Your task to perform on an android device: Open network settings Image 0: 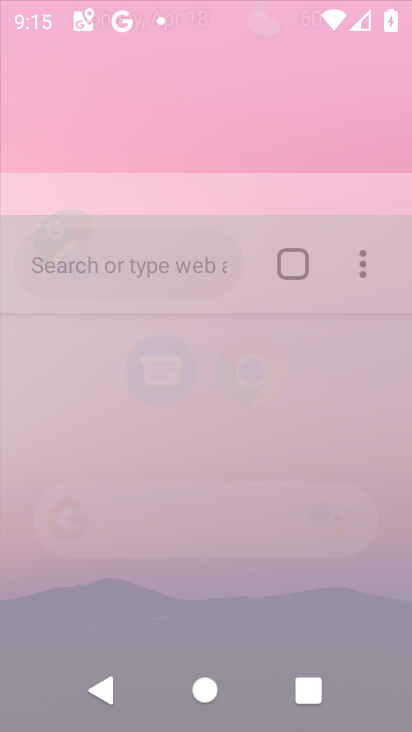
Step 0: drag from (387, 530) to (368, 111)
Your task to perform on an android device: Open network settings Image 1: 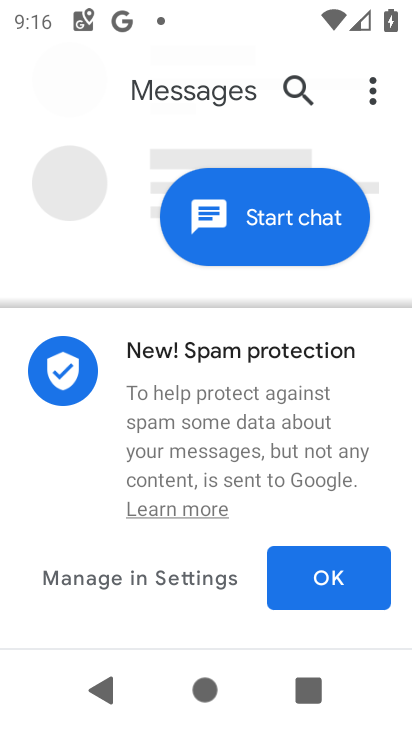
Step 1: press home button
Your task to perform on an android device: Open network settings Image 2: 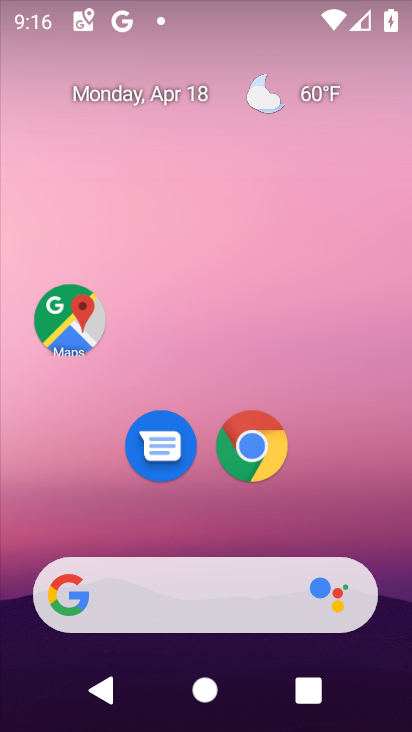
Step 2: drag from (358, 518) to (382, 130)
Your task to perform on an android device: Open network settings Image 3: 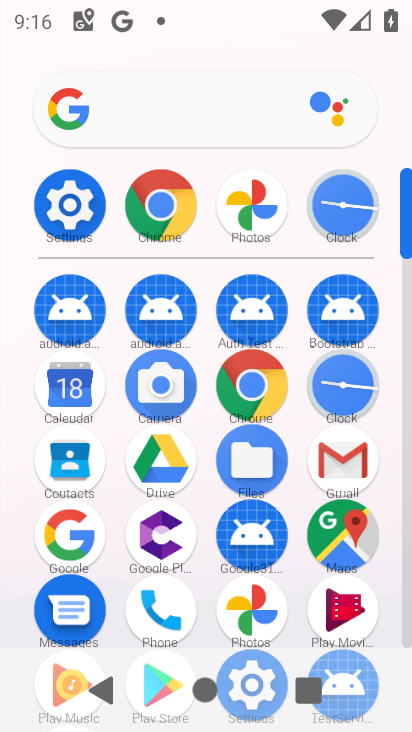
Step 3: click (68, 219)
Your task to perform on an android device: Open network settings Image 4: 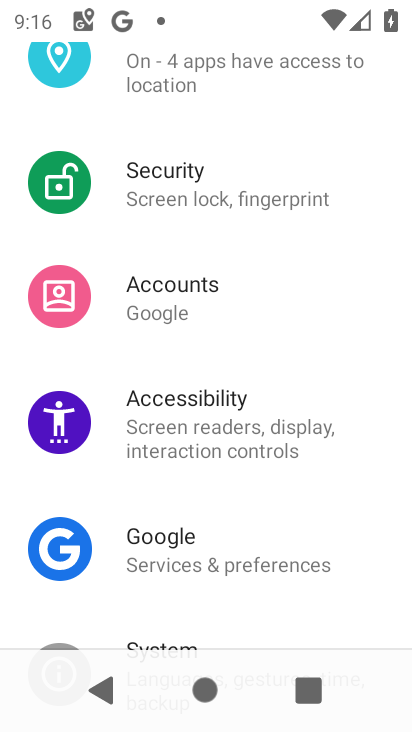
Step 4: drag from (376, 258) to (385, 452)
Your task to perform on an android device: Open network settings Image 5: 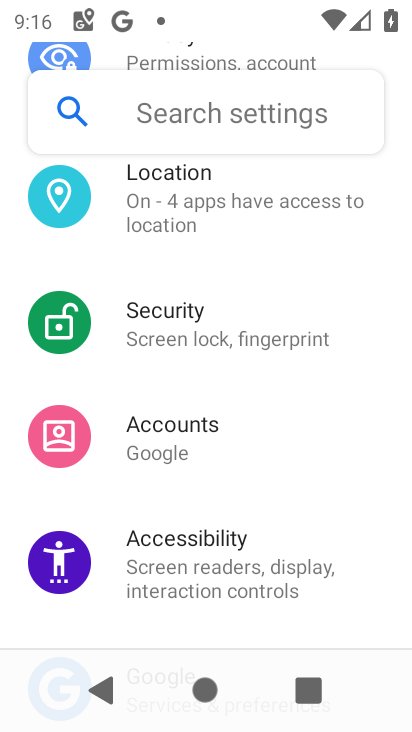
Step 5: drag from (375, 288) to (369, 461)
Your task to perform on an android device: Open network settings Image 6: 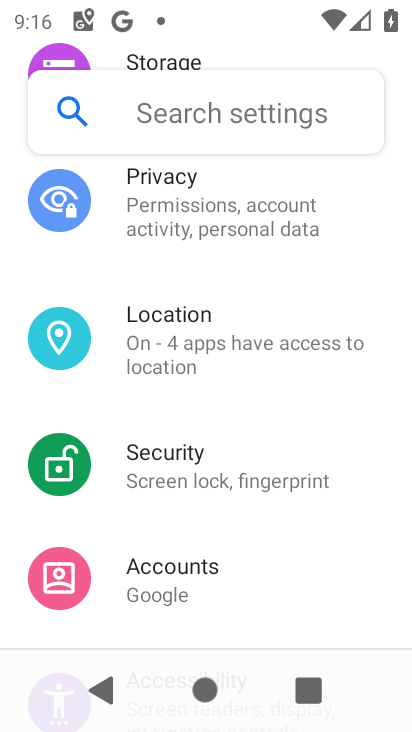
Step 6: drag from (373, 270) to (336, 500)
Your task to perform on an android device: Open network settings Image 7: 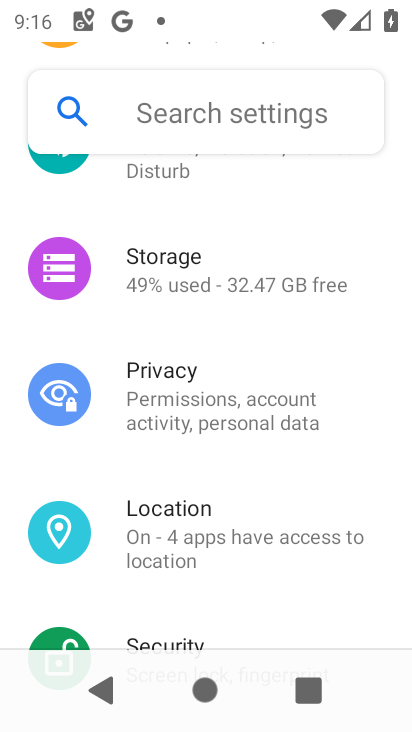
Step 7: drag from (374, 267) to (388, 486)
Your task to perform on an android device: Open network settings Image 8: 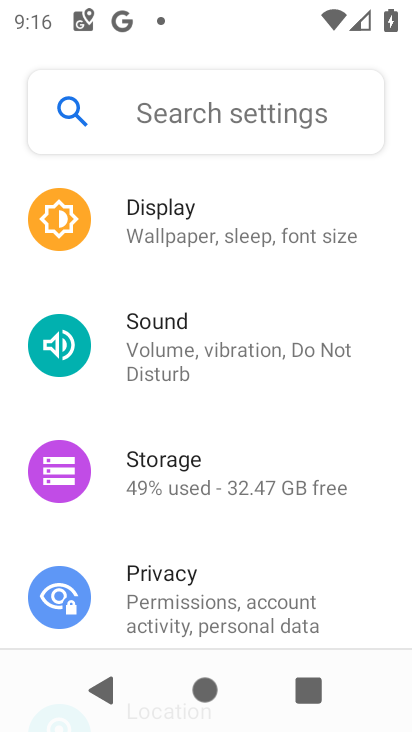
Step 8: drag from (385, 279) to (381, 499)
Your task to perform on an android device: Open network settings Image 9: 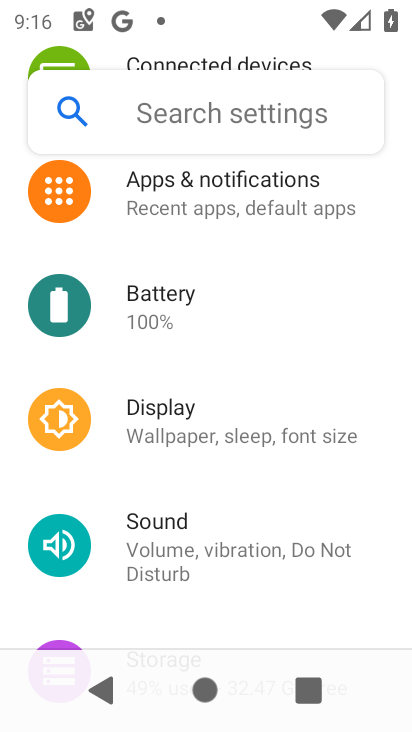
Step 9: drag from (381, 254) to (375, 491)
Your task to perform on an android device: Open network settings Image 10: 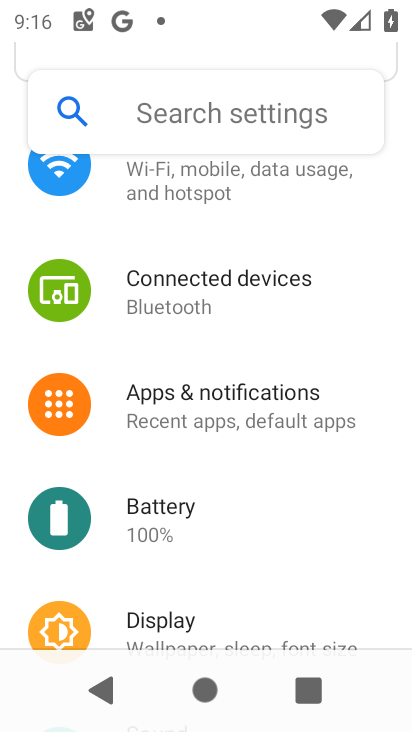
Step 10: drag from (380, 241) to (378, 470)
Your task to perform on an android device: Open network settings Image 11: 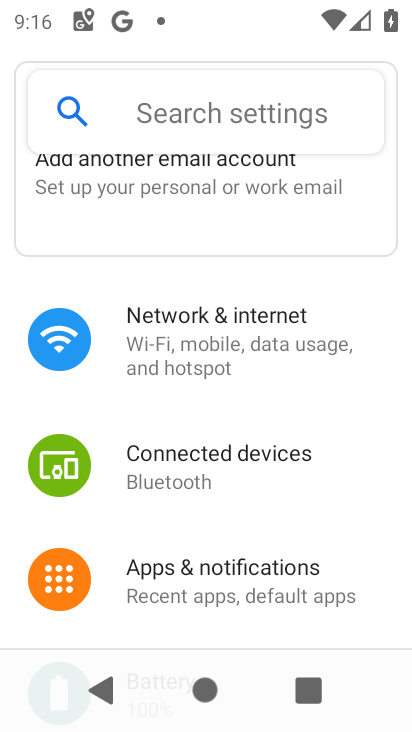
Step 11: click (231, 334)
Your task to perform on an android device: Open network settings Image 12: 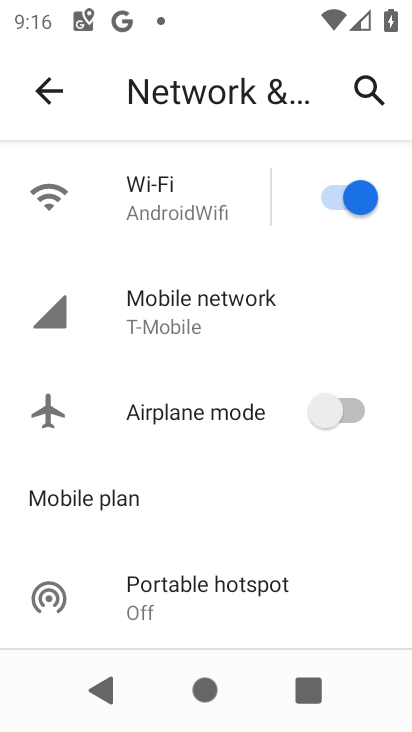
Step 12: task complete